Your task to perform on an android device: Open Chrome and go to settings Image 0: 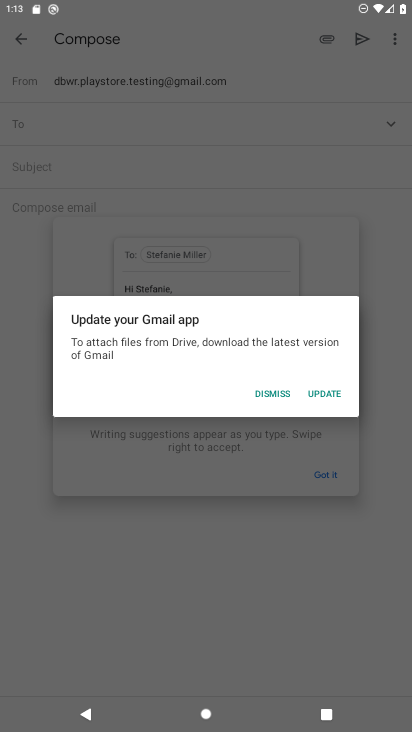
Step 0: press home button
Your task to perform on an android device: Open Chrome and go to settings Image 1: 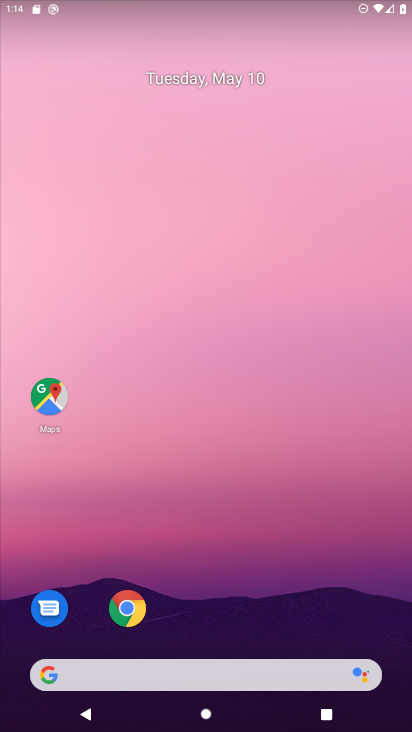
Step 1: drag from (353, 478) to (347, 130)
Your task to perform on an android device: Open Chrome and go to settings Image 2: 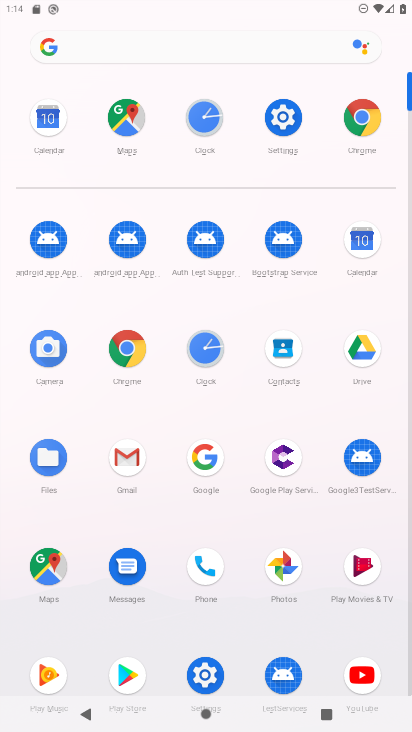
Step 2: click (132, 357)
Your task to perform on an android device: Open Chrome and go to settings Image 3: 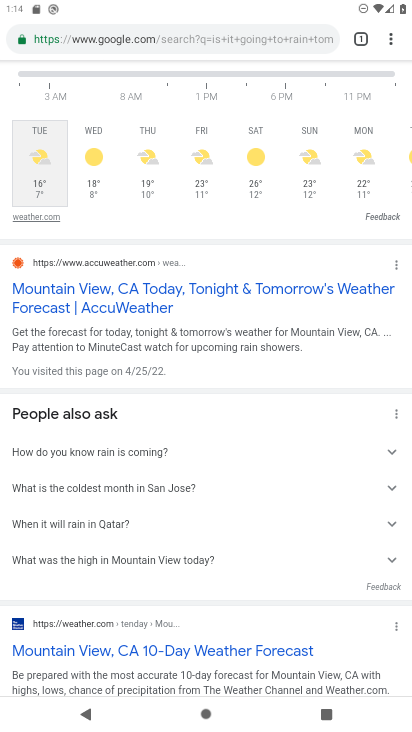
Step 3: task complete